Your task to perform on an android device: change alarm snooze length Image 0: 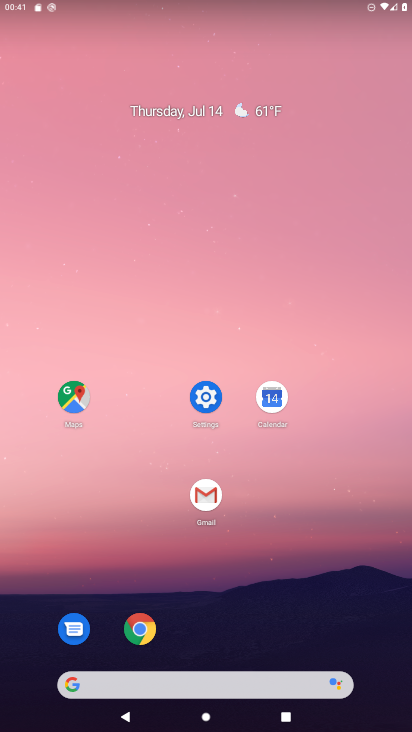
Step 0: drag from (381, 711) to (207, 178)
Your task to perform on an android device: change alarm snooze length Image 1: 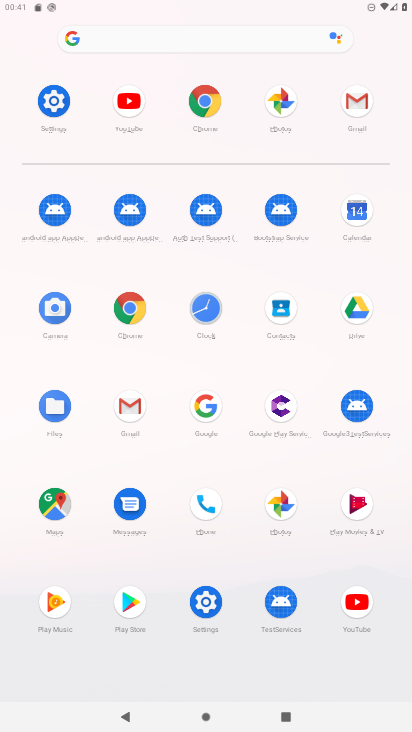
Step 1: click (217, 298)
Your task to perform on an android device: change alarm snooze length Image 2: 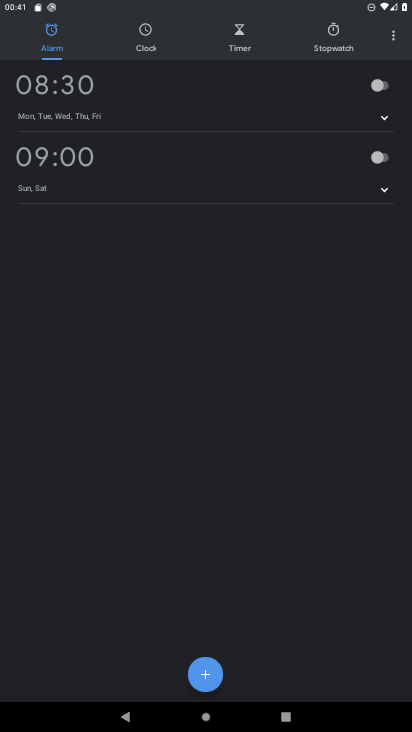
Step 2: click (394, 43)
Your task to perform on an android device: change alarm snooze length Image 3: 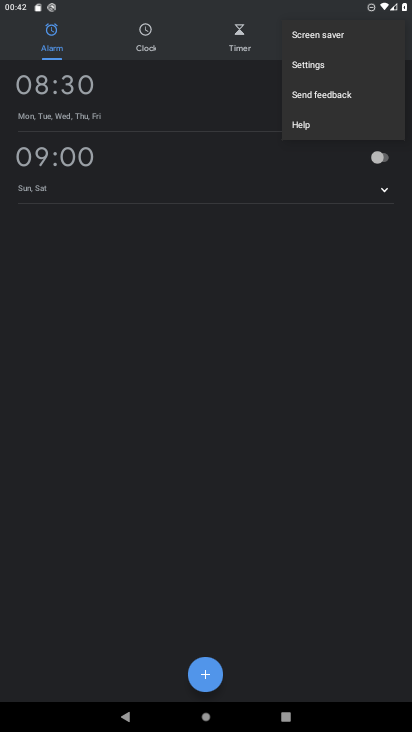
Step 3: click (302, 64)
Your task to perform on an android device: change alarm snooze length Image 4: 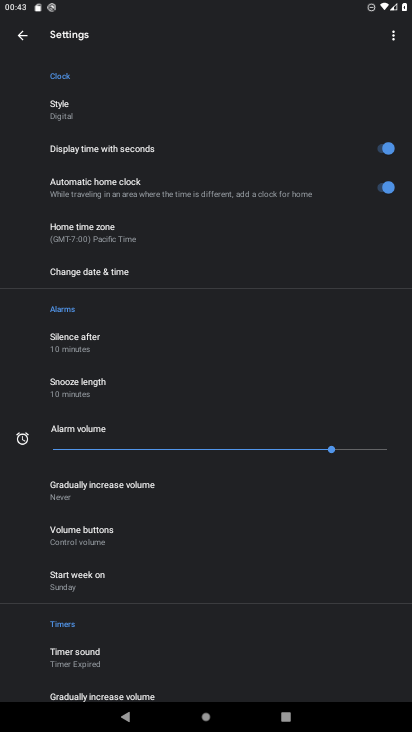
Step 4: drag from (211, 587) to (189, 383)
Your task to perform on an android device: change alarm snooze length Image 5: 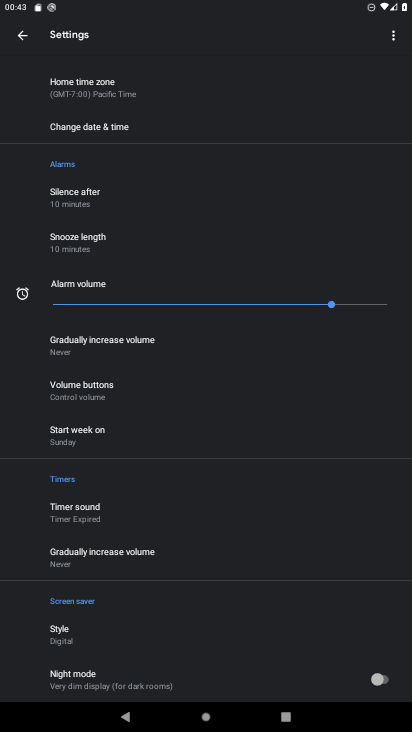
Step 5: click (92, 239)
Your task to perform on an android device: change alarm snooze length Image 6: 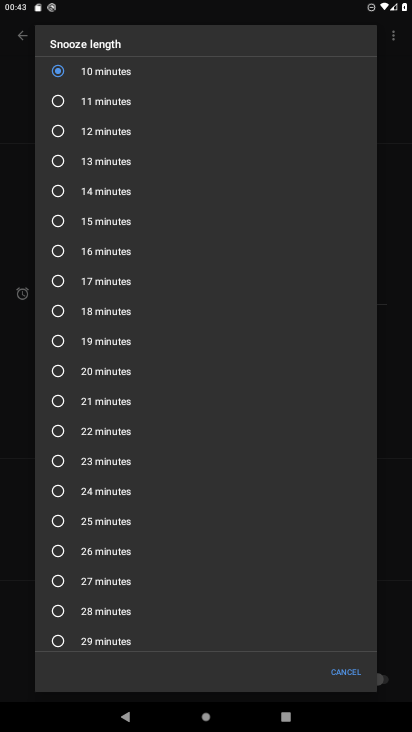
Step 6: click (61, 309)
Your task to perform on an android device: change alarm snooze length Image 7: 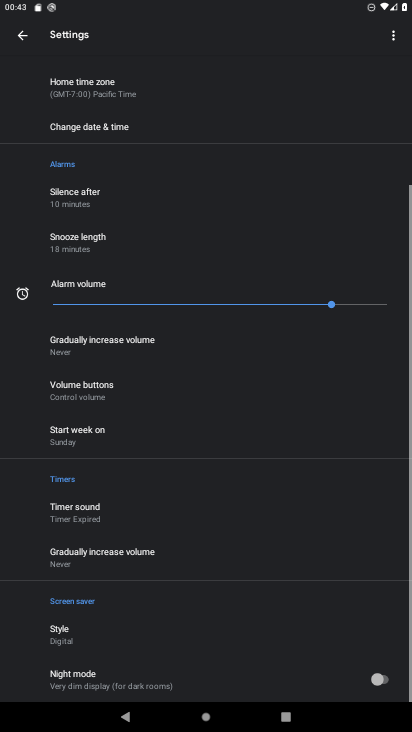
Step 7: task complete